Your task to perform on an android device: Go to Yahoo.com Image 0: 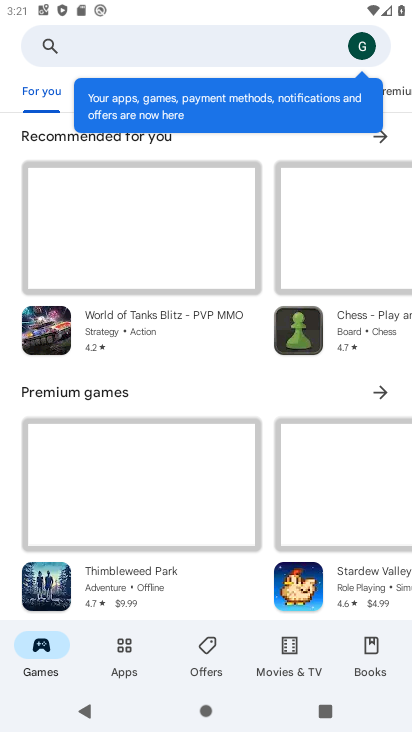
Step 0: press home button
Your task to perform on an android device: Go to Yahoo.com Image 1: 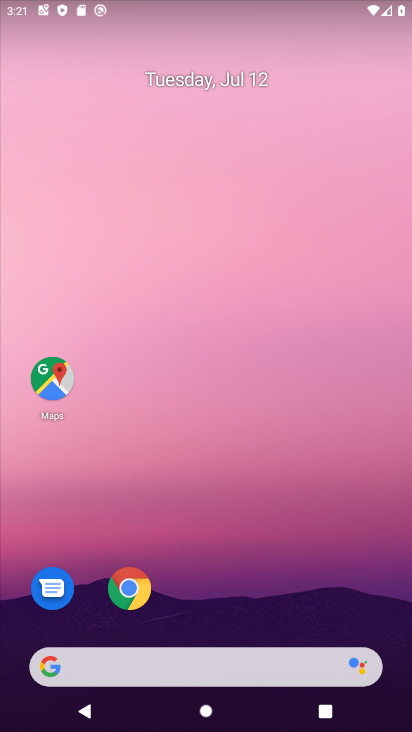
Step 1: click (125, 587)
Your task to perform on an android device: Go to Yahoo.com Image 2: 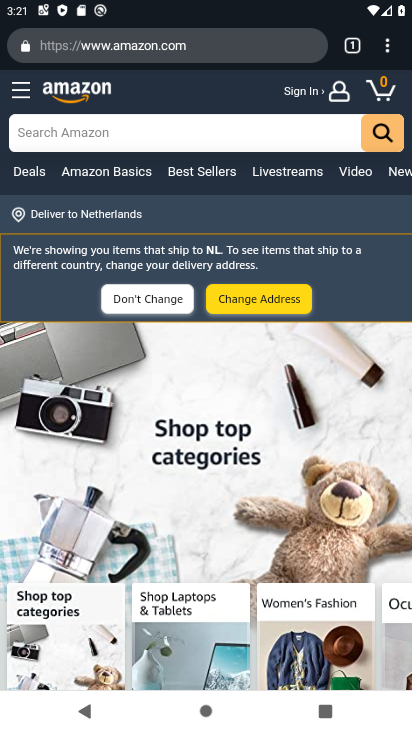
Step 2: click (173, 57)
Your task to perform on an android device: Go to Yahoo.com Image 3: 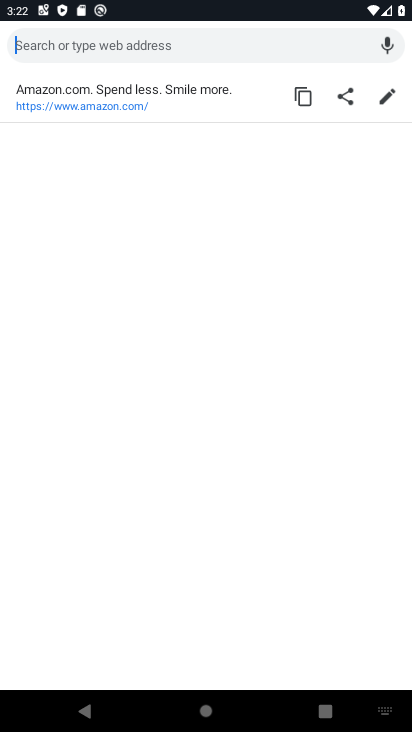
Step 3: type "yahoo.com"
Your task to perform on an android device: Go to Yahoo.com Image 4: 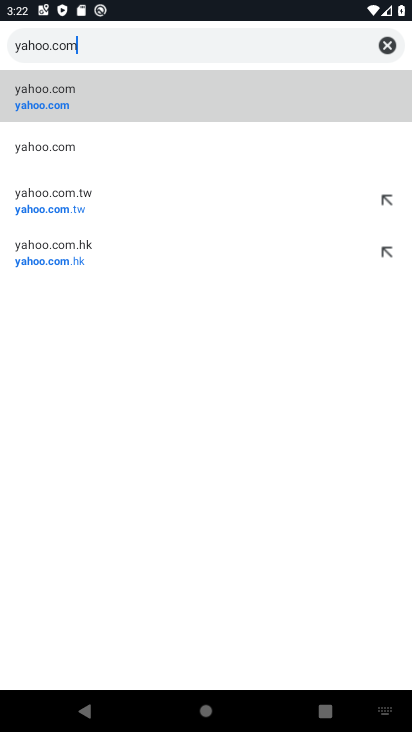
Step 4: click (115, 101)
Your task to perform on an android device: Go to Yahoo.com Image 5: 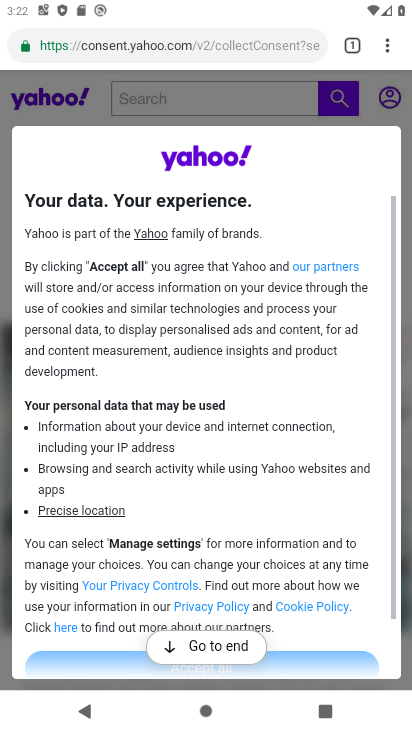
Step 5: task complete